Your task to perform on an android device: Go to Maps Image 0: 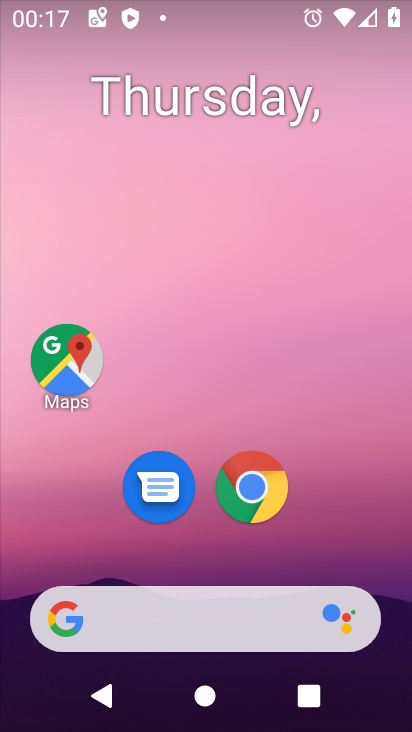
Step 0: click (74, 358)
Your task to perform on an android device: Go to Maps Image 1: 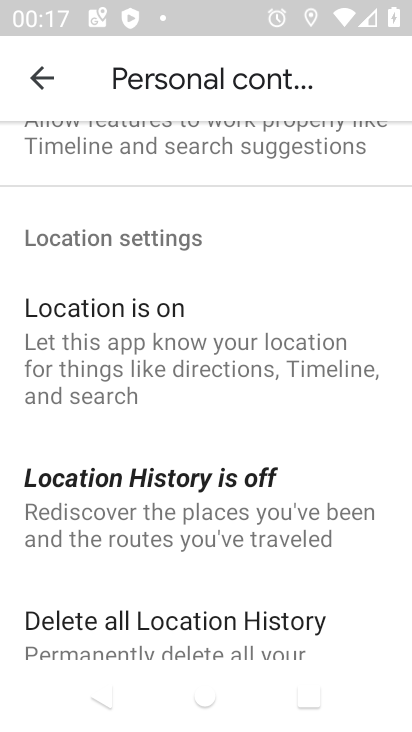
Step 1: click (40, 84)
Your task to perform on an android device: Go to Maps Image 2: 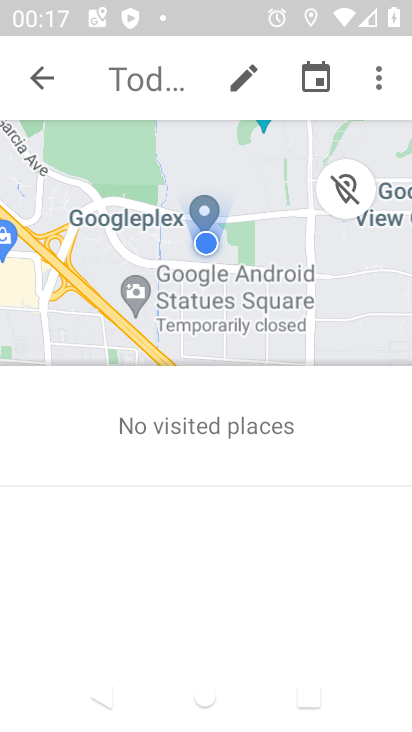
Step 2: task complete